Your task to perform on an android device: See recent photos Image 0: 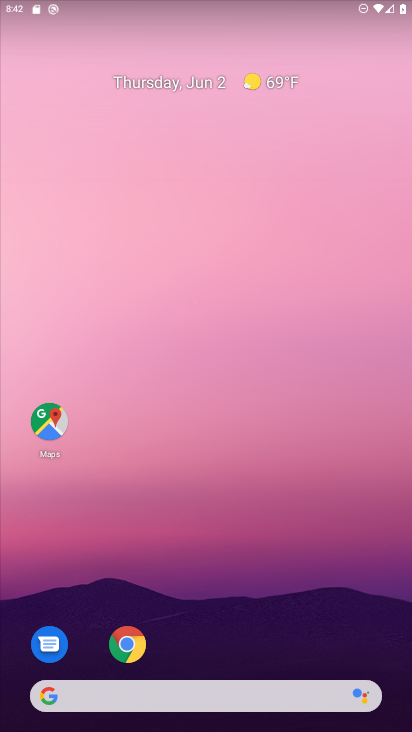
Step 0: drag from (241, 635) to (143, 14)
Your task to perform on an android device: See recent photos Image 1: 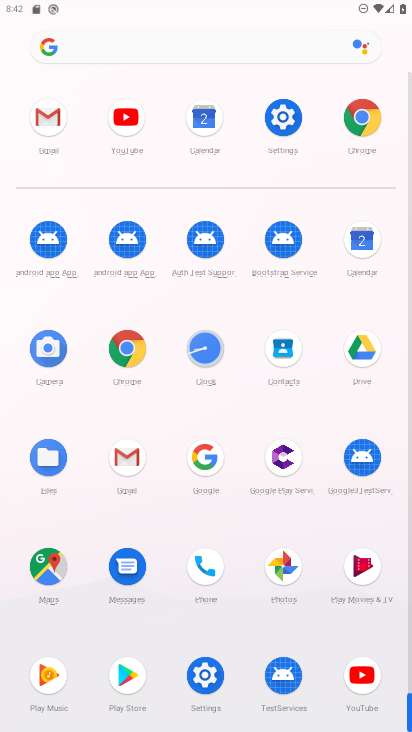
Step 1: click (282, 567)
Your task to perform on an android device: See recent photos Image 2: 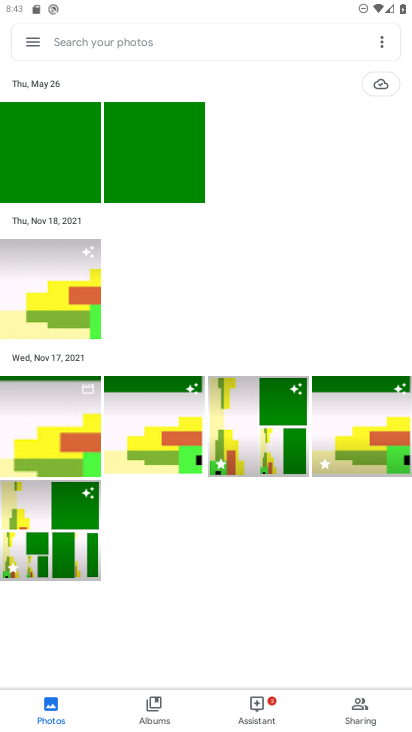
Step 2: task complete